Your task to perform on an android device: remove spam from my inbox in the gmail app Image 0: 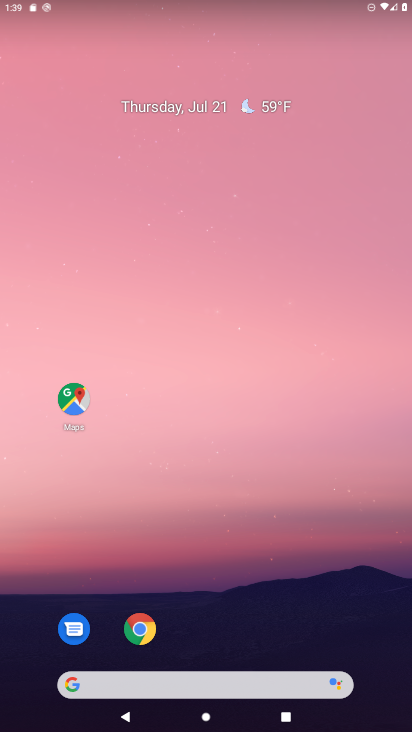
Step 0: drag from (391, 686) to (373, 197)
Your task to perform on an android device: remove spam from my inbox in the gmail app Image 1: 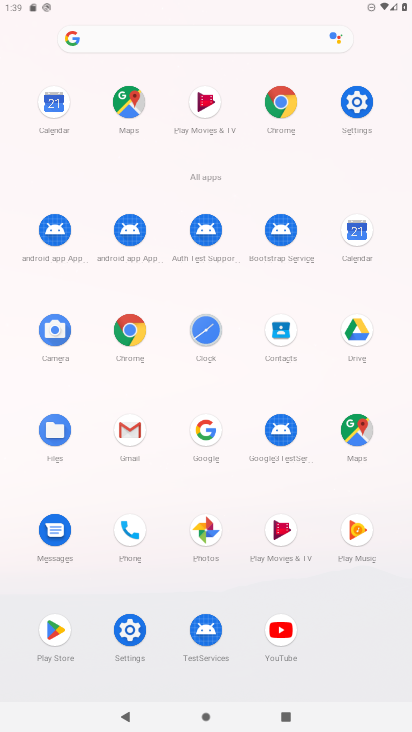
Step 1: click (130, 431)
Your task to perform on an android device: remove spam from my inbox in the gmail app Image 2: 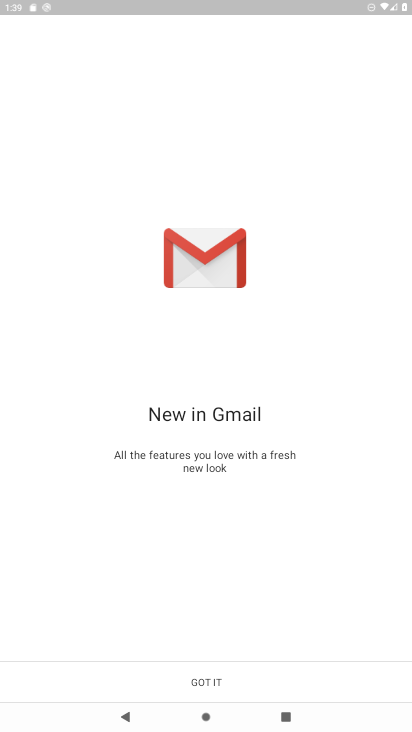
Step 2: click (205, 678)
Your task to perform on an android device: remove spam from my inbox in the gmail app Image 3: 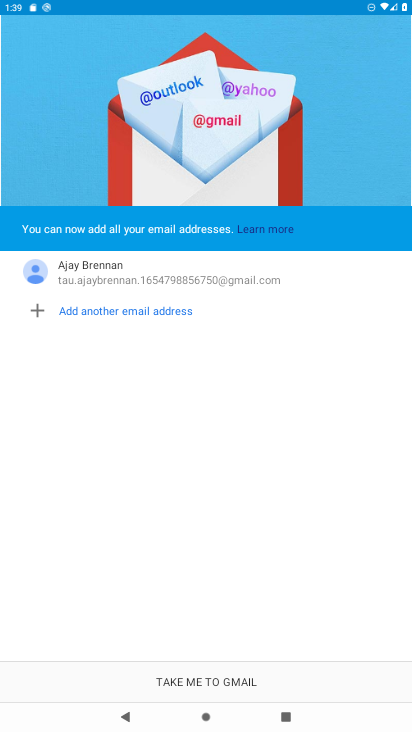
Step 3: click (205, 678)
Your task to perform on an android device: remove spam from my inbox in the gmail app Image 4: 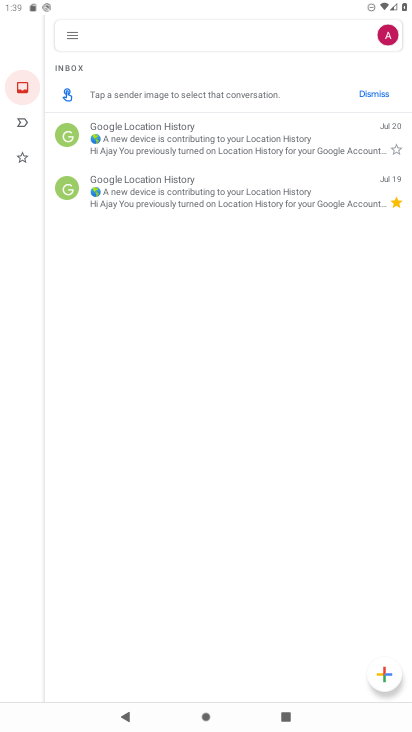
Step 4: click (69, 35)
Your task to perform on an android device: remove spam from my inbox in the gmail app Image 5: 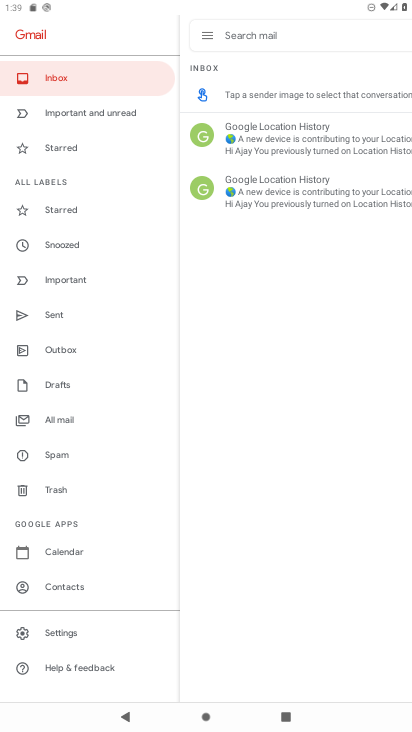
Step 5: click (47, 626)
Your task to perform on an android device: remove spam from my inbox in the gmail app Image 6: 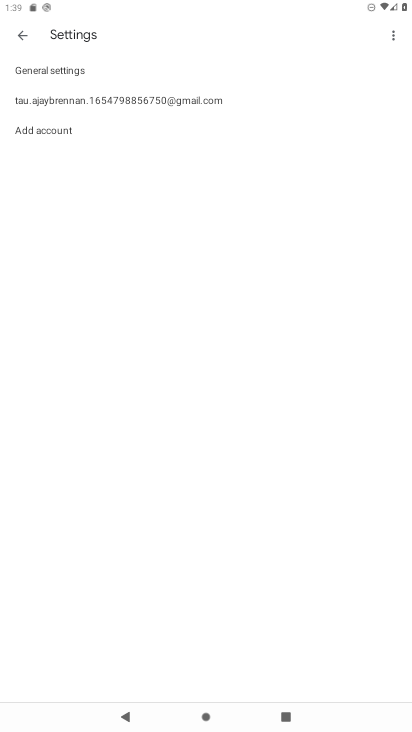
Step 6: press back button
Your task to perform on an android device: remove spam from my inbox in the gmail app Image 7: 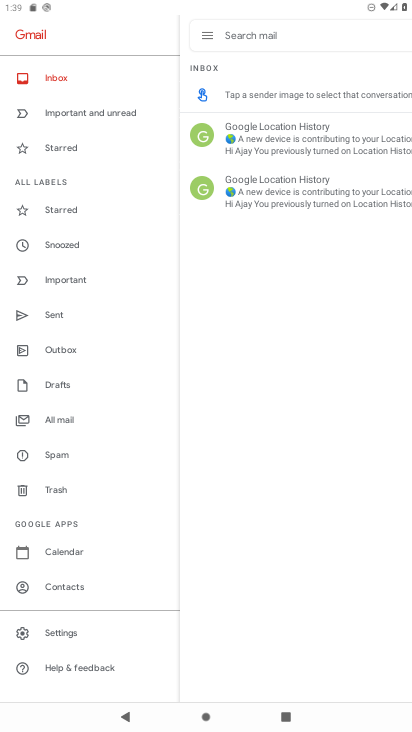
Step 7: click (56, 458)
Your task to perform on an android device: remove spam from my inbox in the gmail app Image 8: 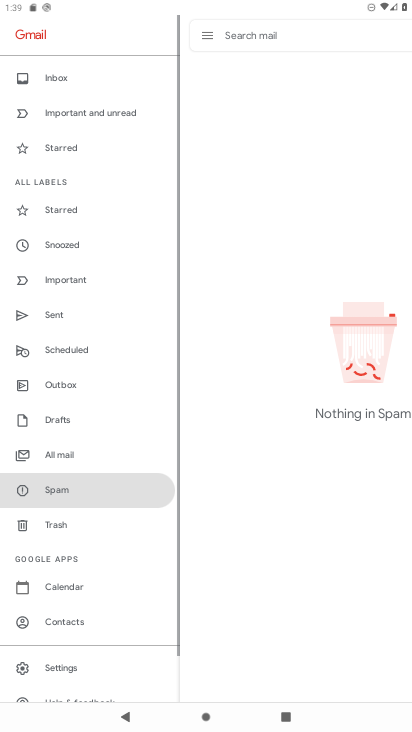
Step 8: task complete